Your task to perform on an android device: Open Chrome and go to the settings page Image 0: 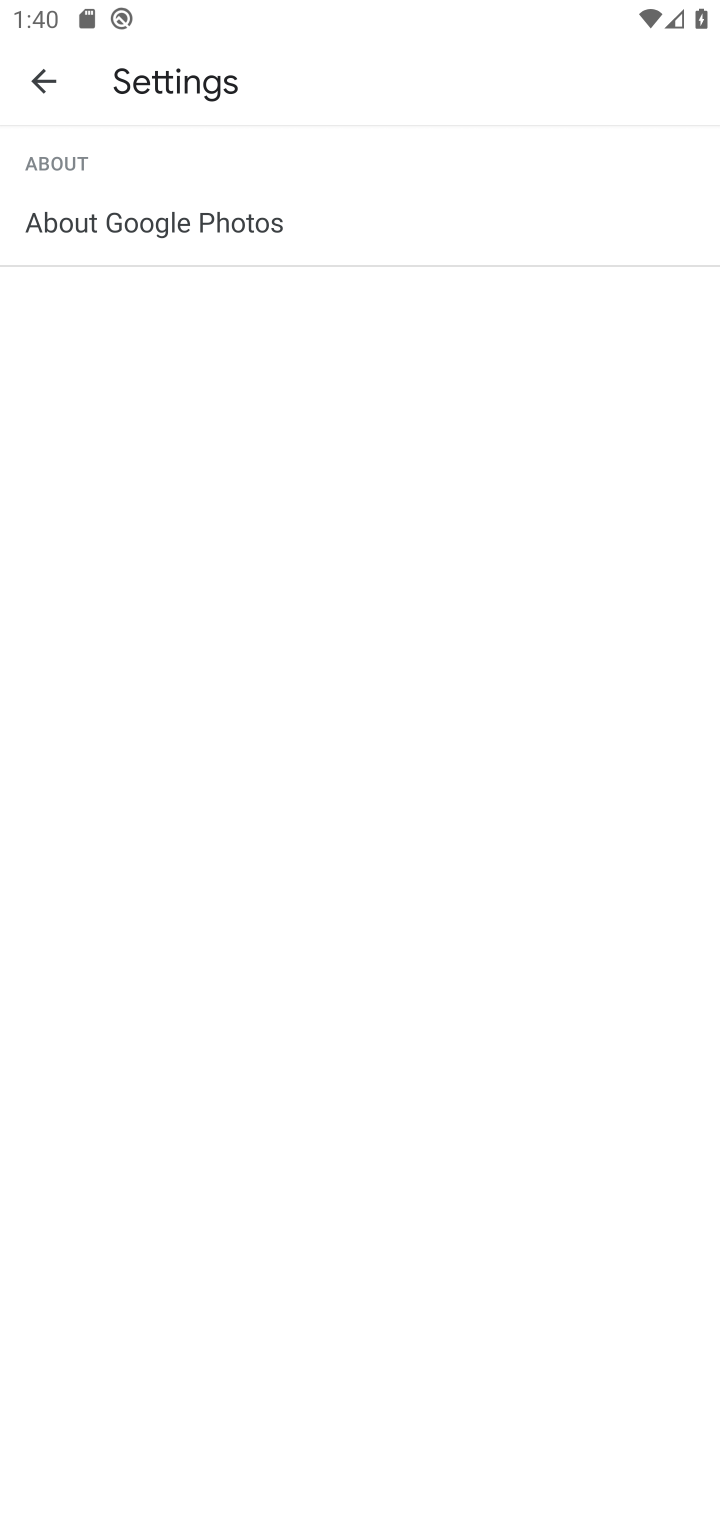
Step 0: press home button
Your task to perform on an android device: Open Chrome and go to the settings page Image 1: 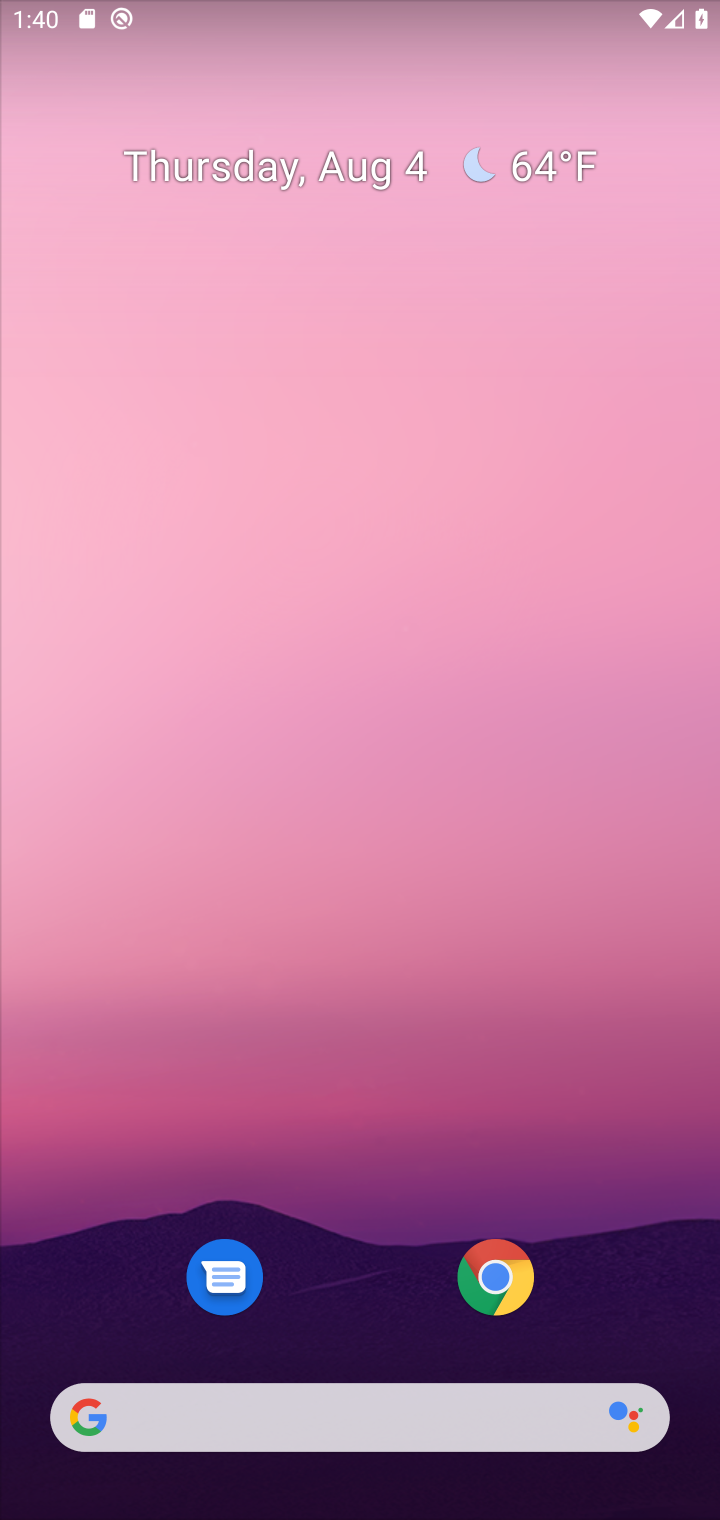
Step 1: drag from (338, 1192) to (401, 471)
Your task to perform on an android device: Open Chrome and go to the settings page Image 2: 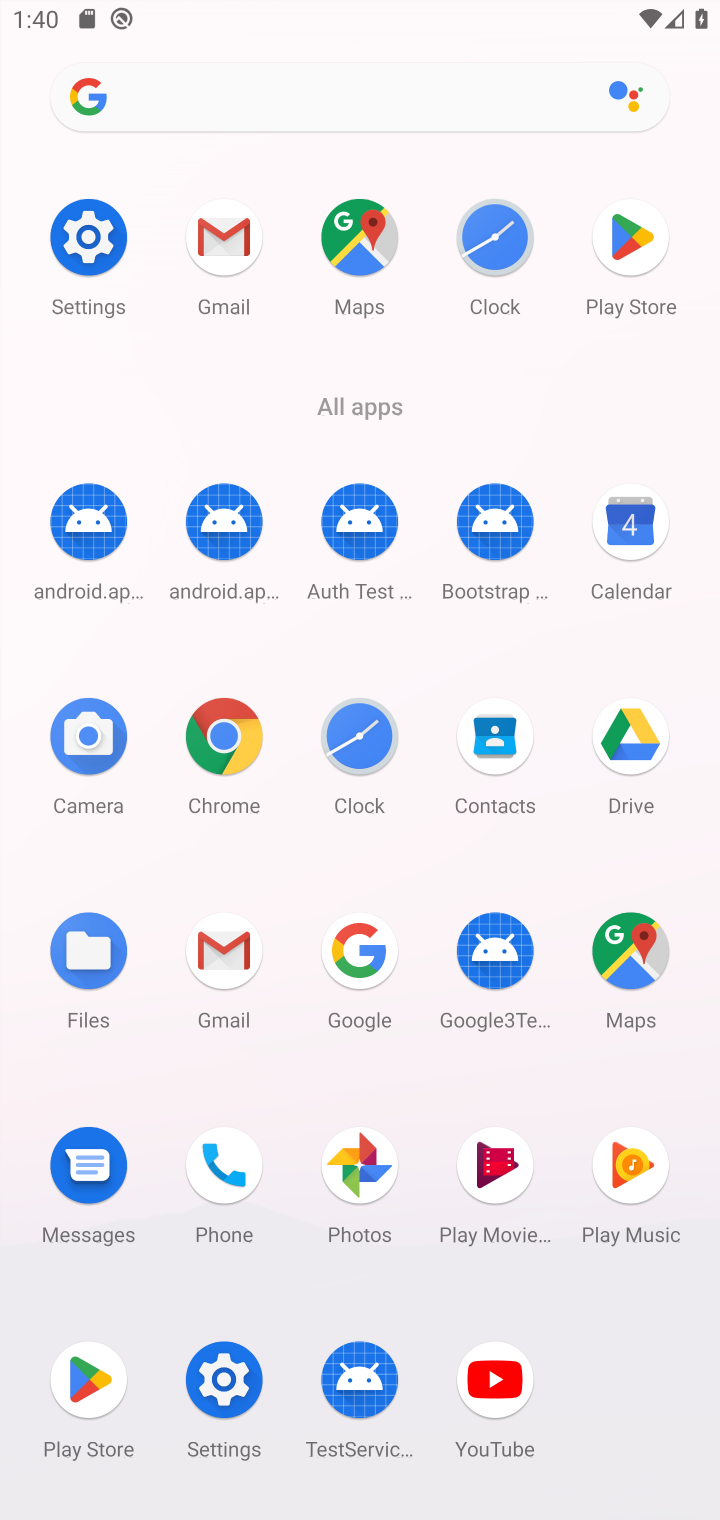
Step 2: click (229, 743)
Your task to perform on an android device: Open Chrome and go to the settings page Image 3: 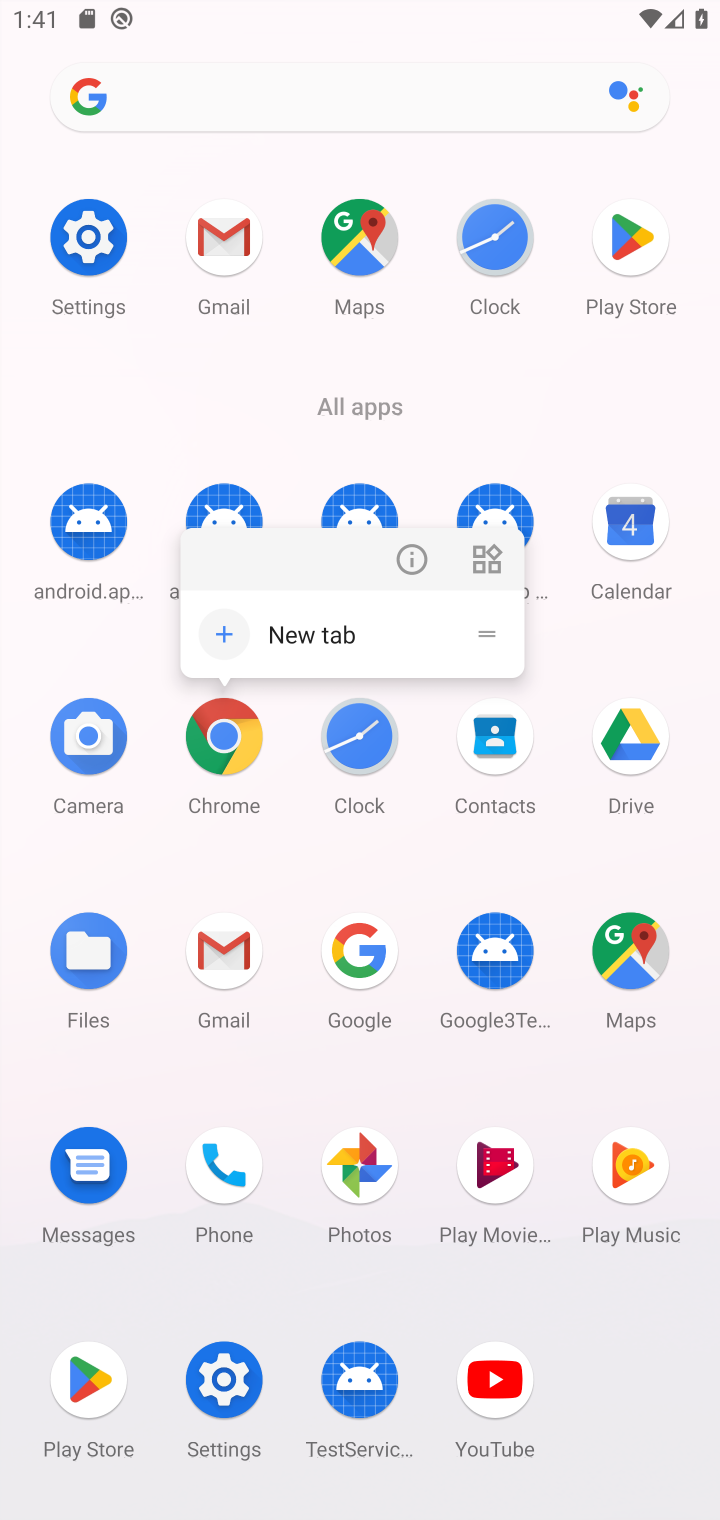
Step 3: click (236, 766)
Your task to perform on an android device: Open Chrome and go to the settings page Image 4: 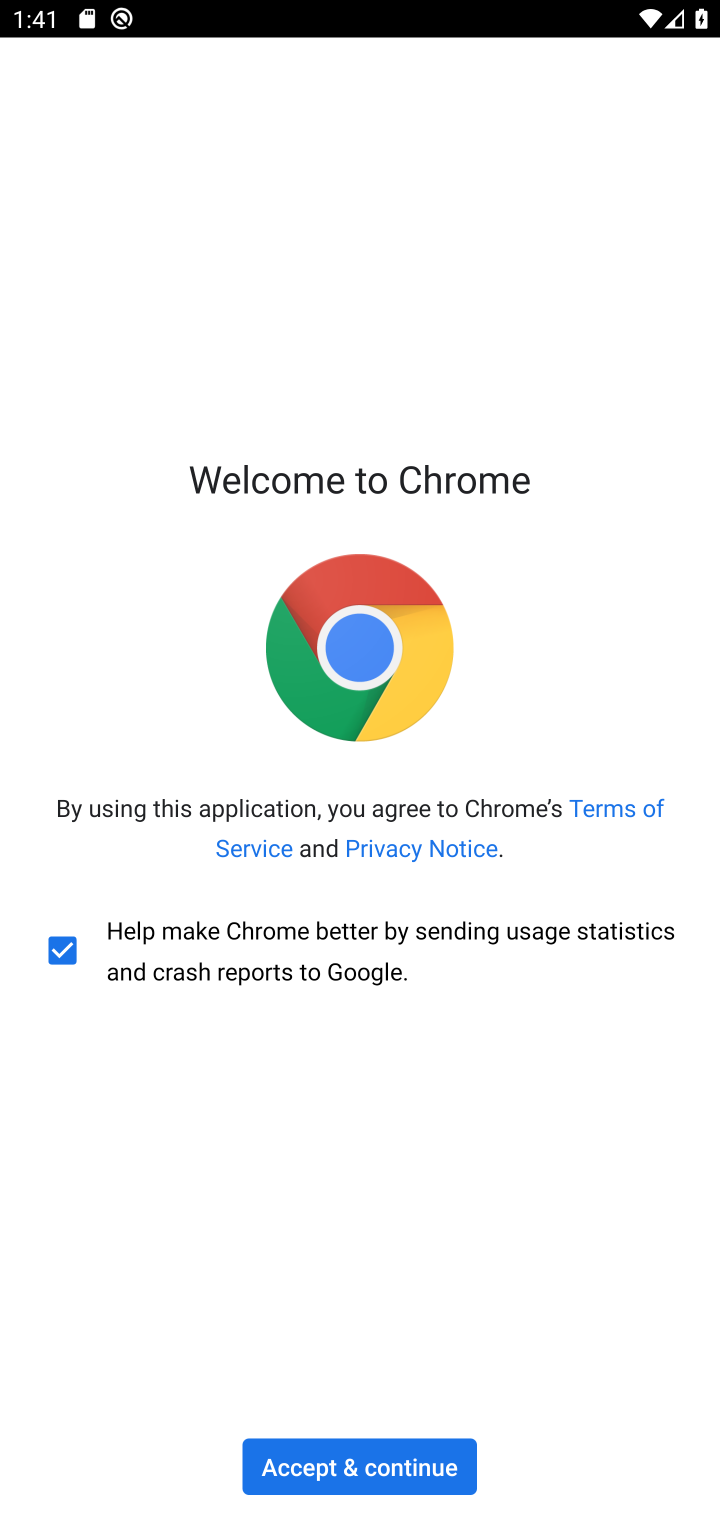
Step 4: click (370, 1464)
Your task to perform on an android device: Open Chrome and go to the settings page Image 5: 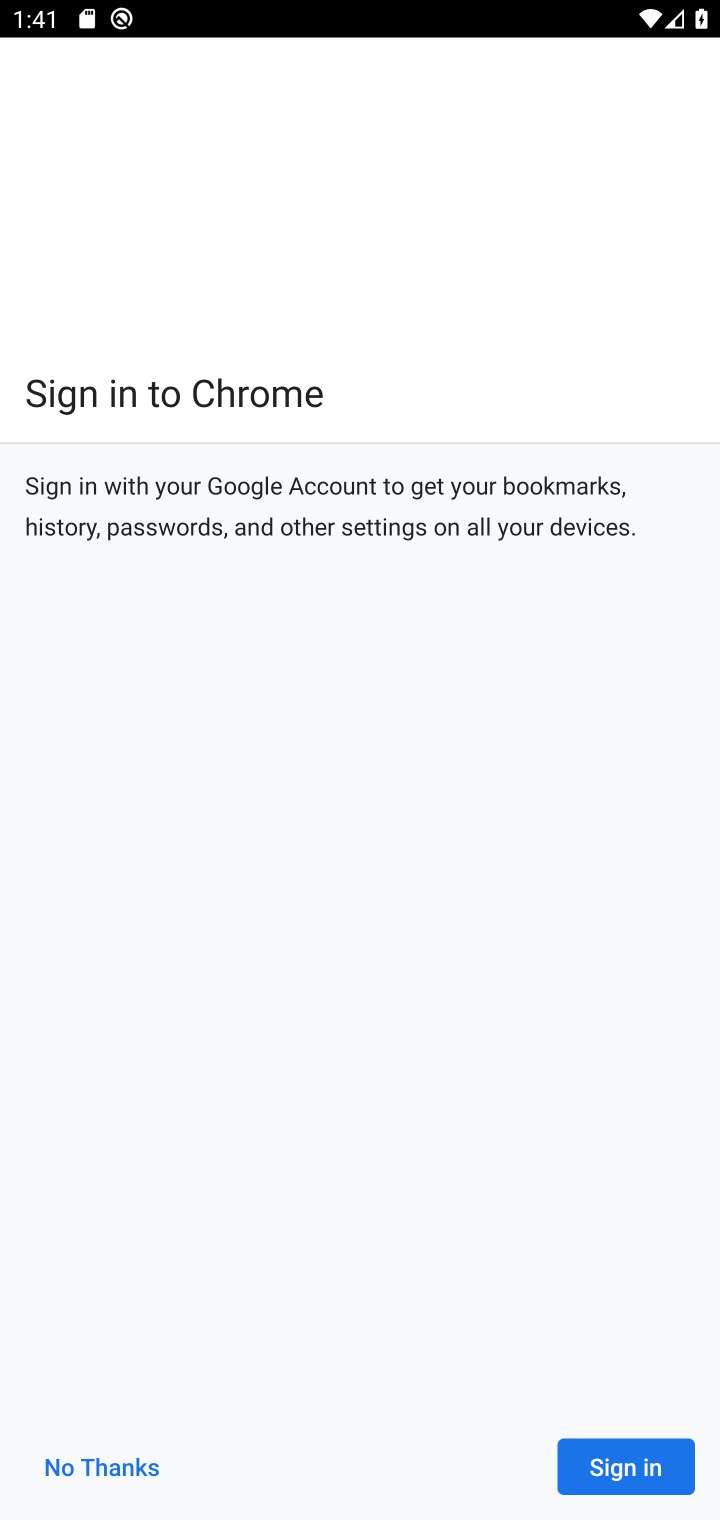
Step 5: click (685, 1457)
Your task to perform on an android device: Open Chrome and go to the settings page Image 6: 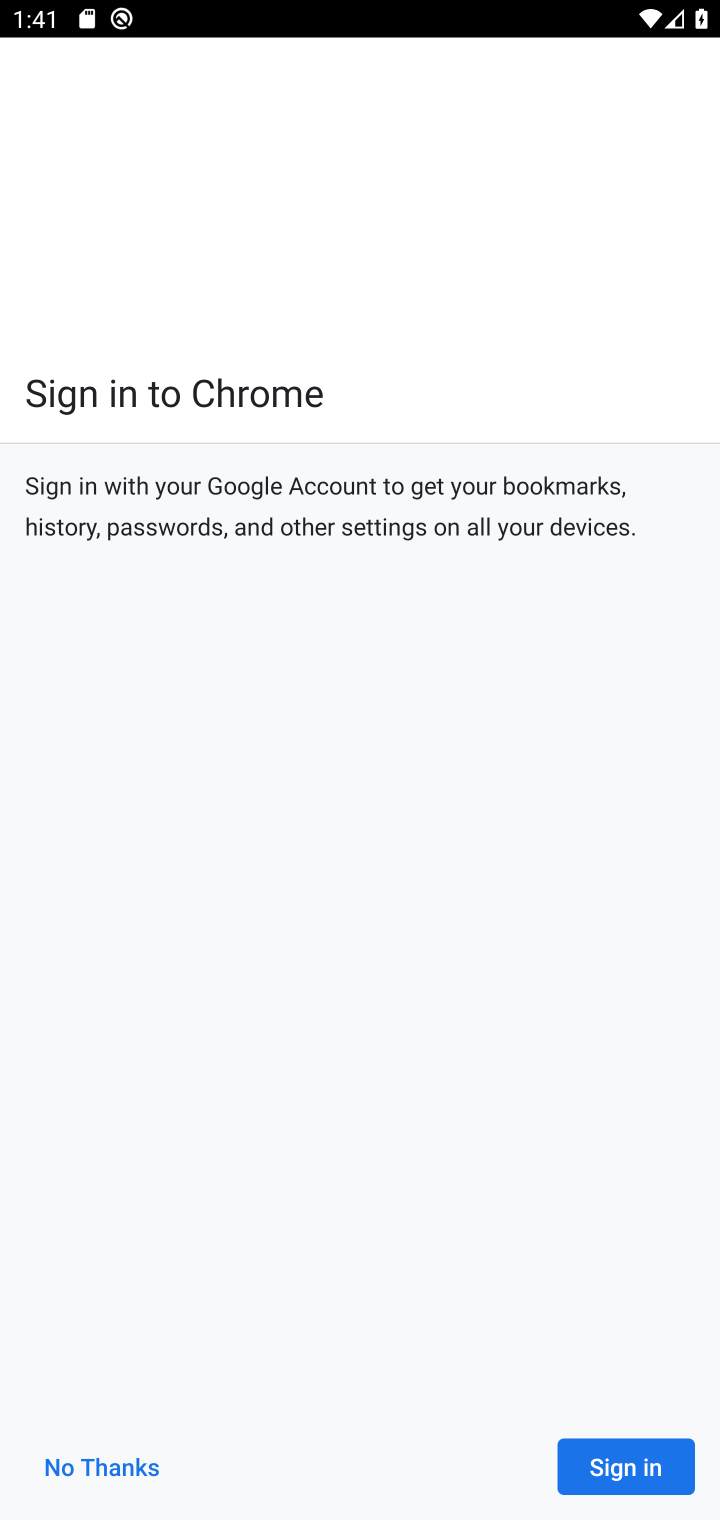
Step 6: click (646, 1455)
Your task to perform on an android device: Open Chrome and go to the settings page Image 7: 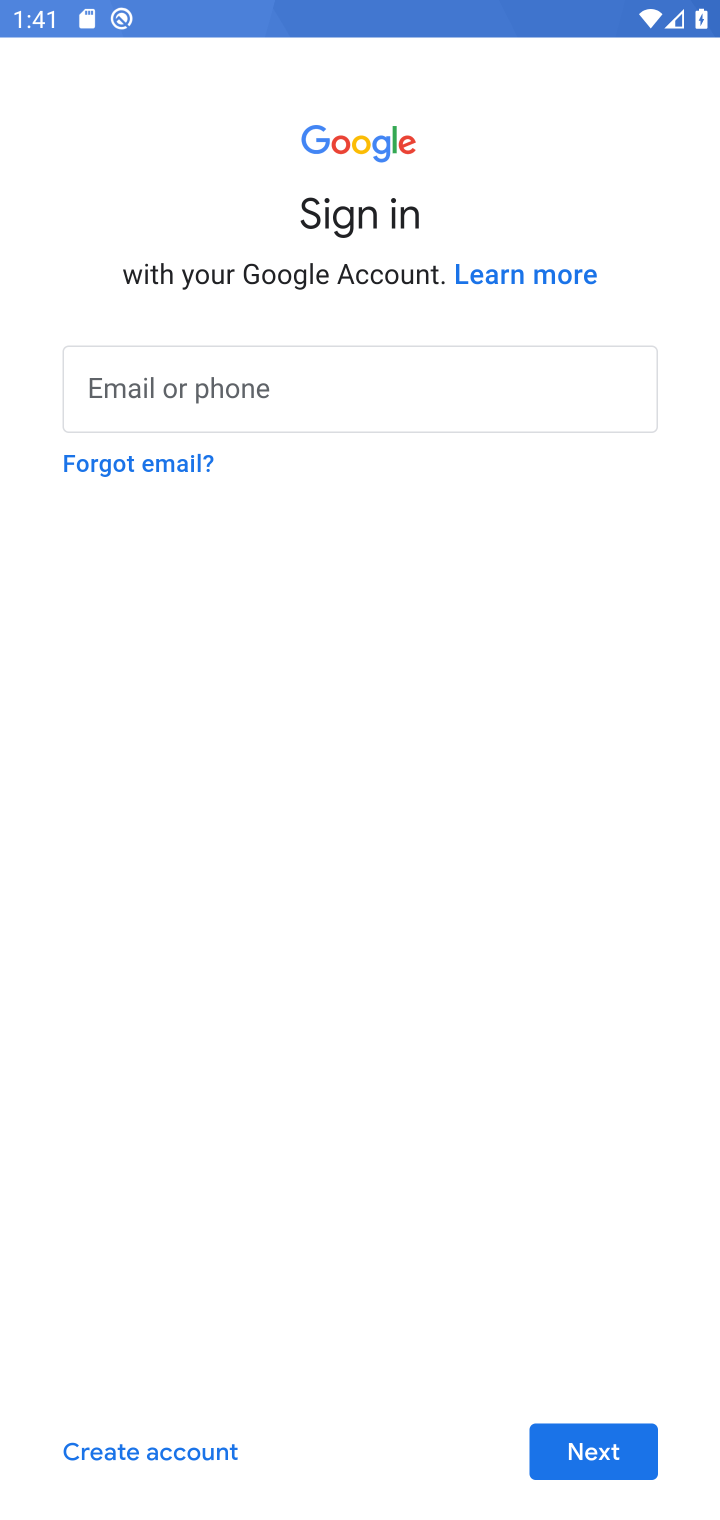
Step 7: task complete